Your task to perform on an android device: View the shopping cart on amazon.com. Add "usb-b" to the cart on amazon.com Image 0: 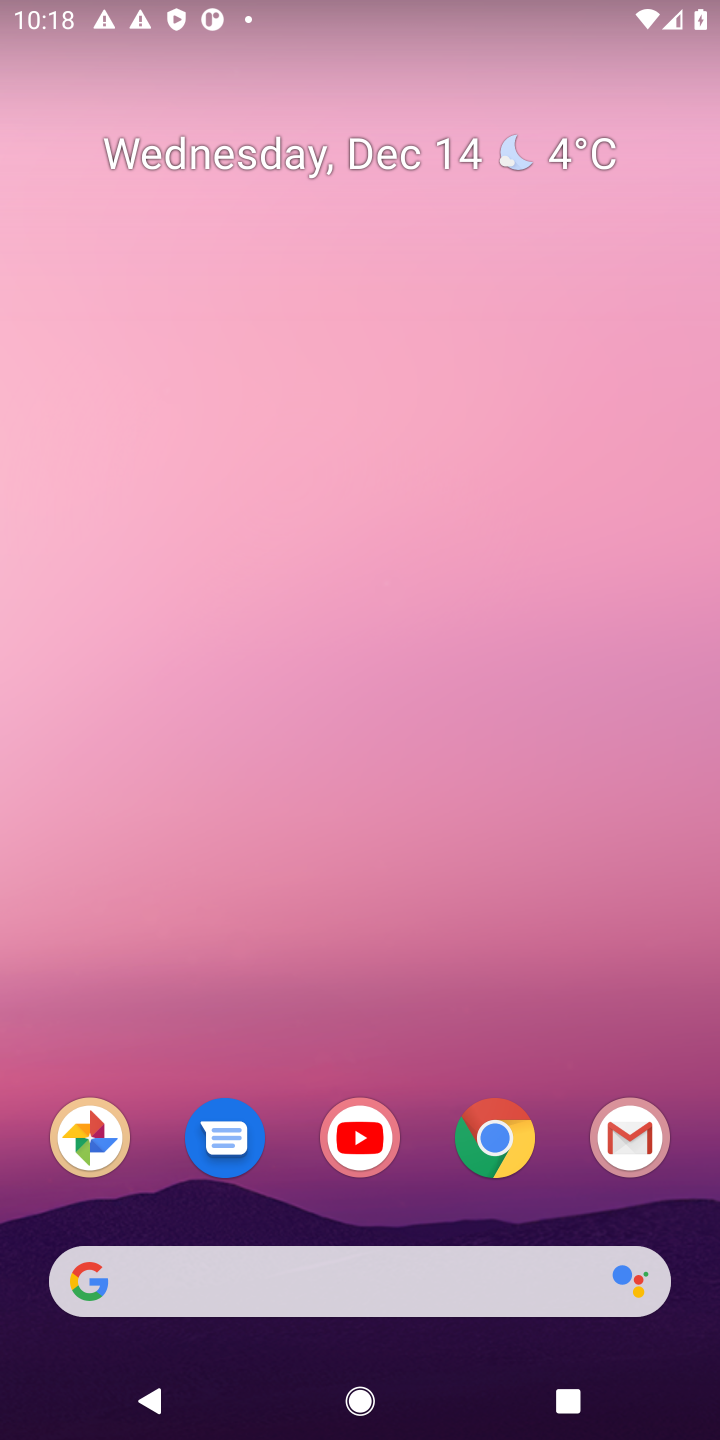
Step 0: click (519, 1152)
Your task to perform on an android device: View the shopping cart on amazon.com. Add "usb-b" to the cart on amazon.com Image 1: 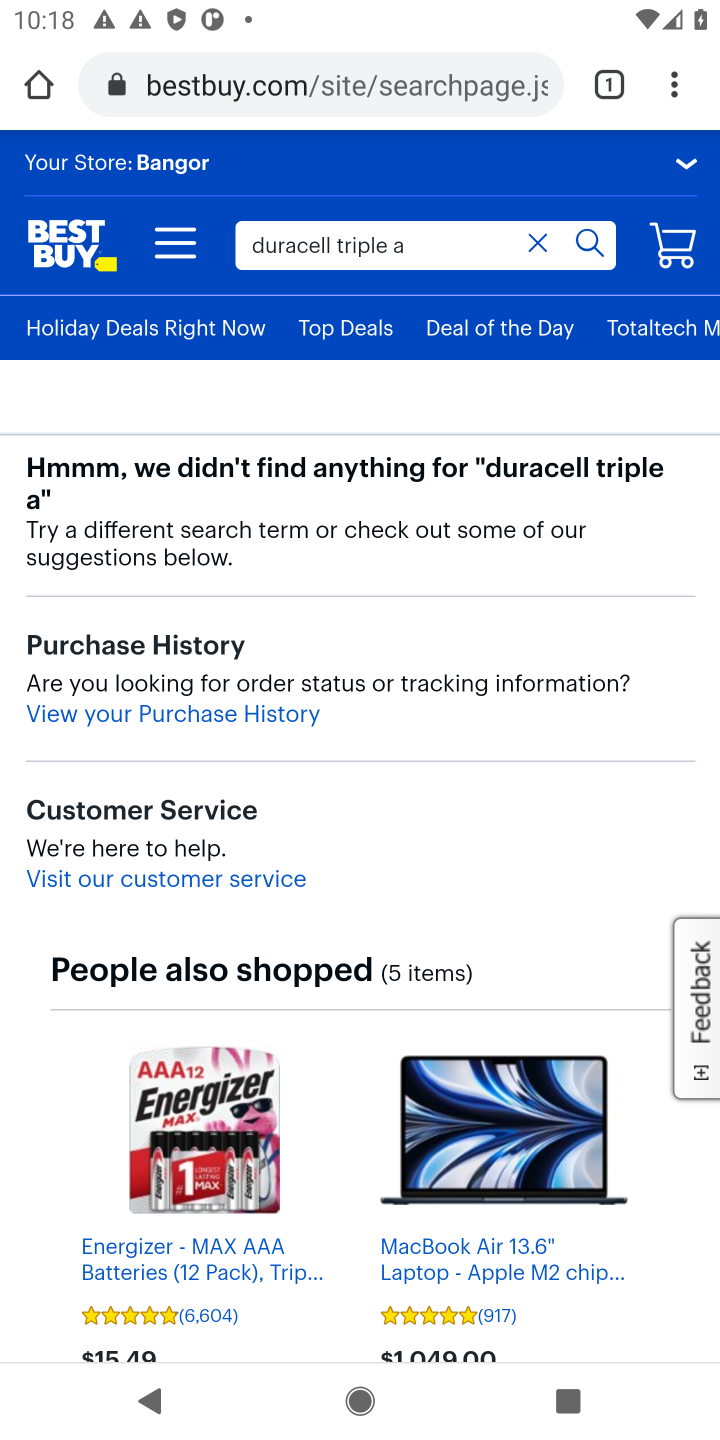
Step 1: click (279, 103)
Your task to perform on an android device: View the shopping cart on amazon.com. Add "usb-b" to the cart on amazon.com Image 2: 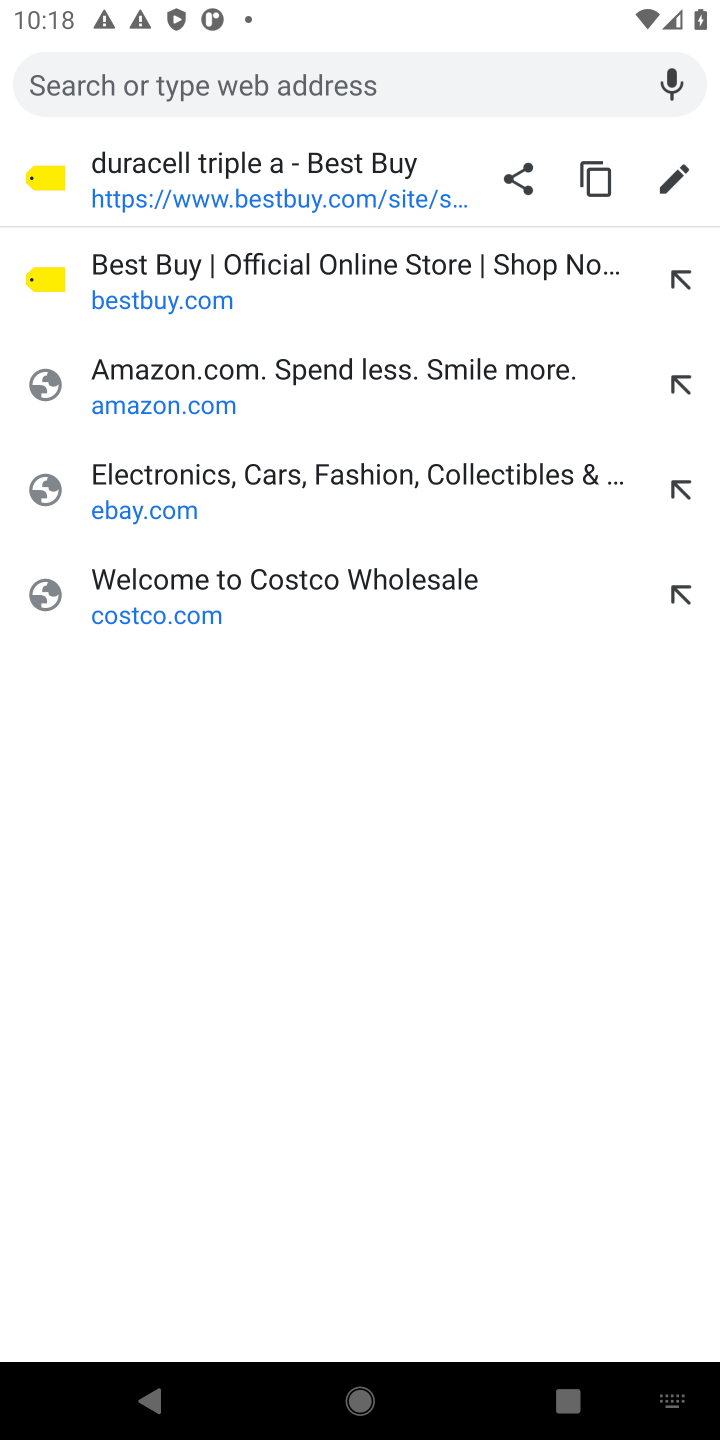
Step 2: click (120, 393)
Your task to perform on an android device: View the shopping cart on amazon.com. Add "usb-b" to the cart on amazon.com Image 3: 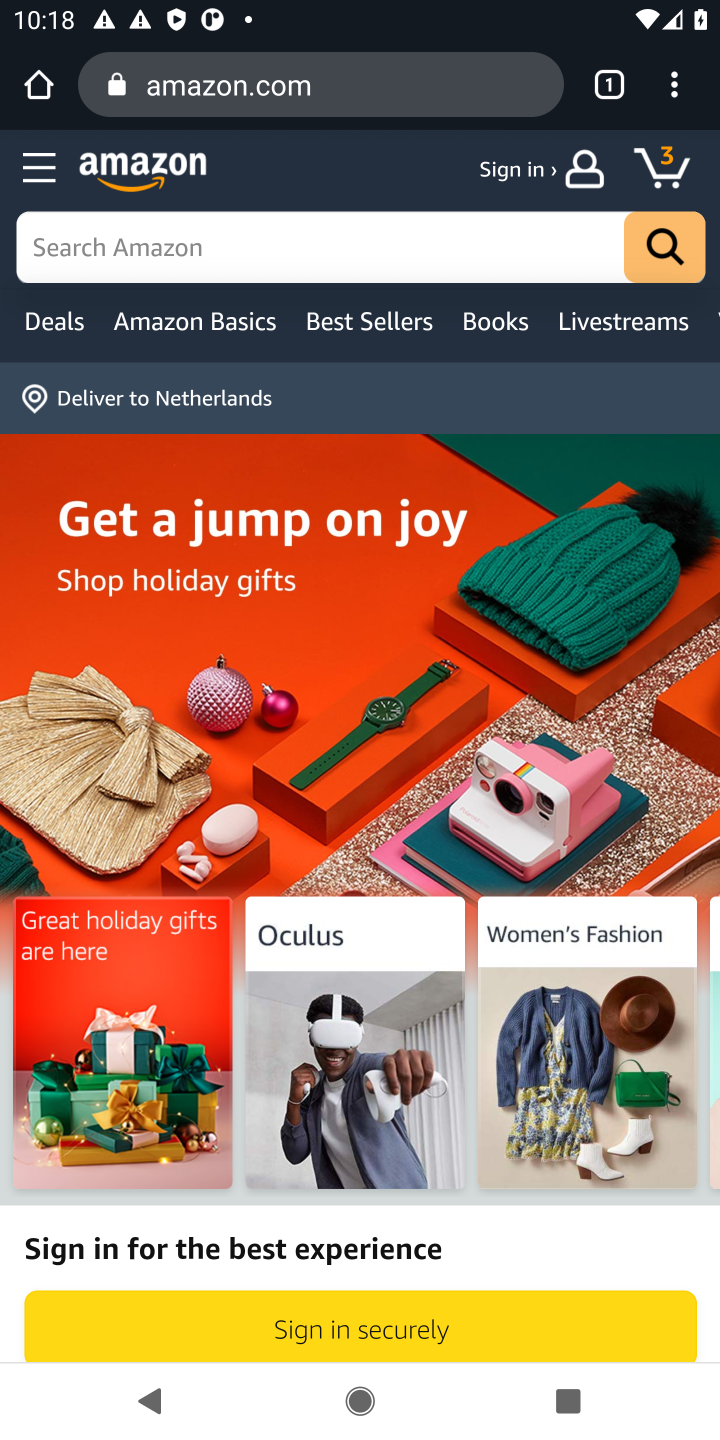
Step 3: click (669, 180)
Your task to perform on an android device: View the shopping cart on amazon.com. Add "usb-b" to the cart on amazon.com Image 4: 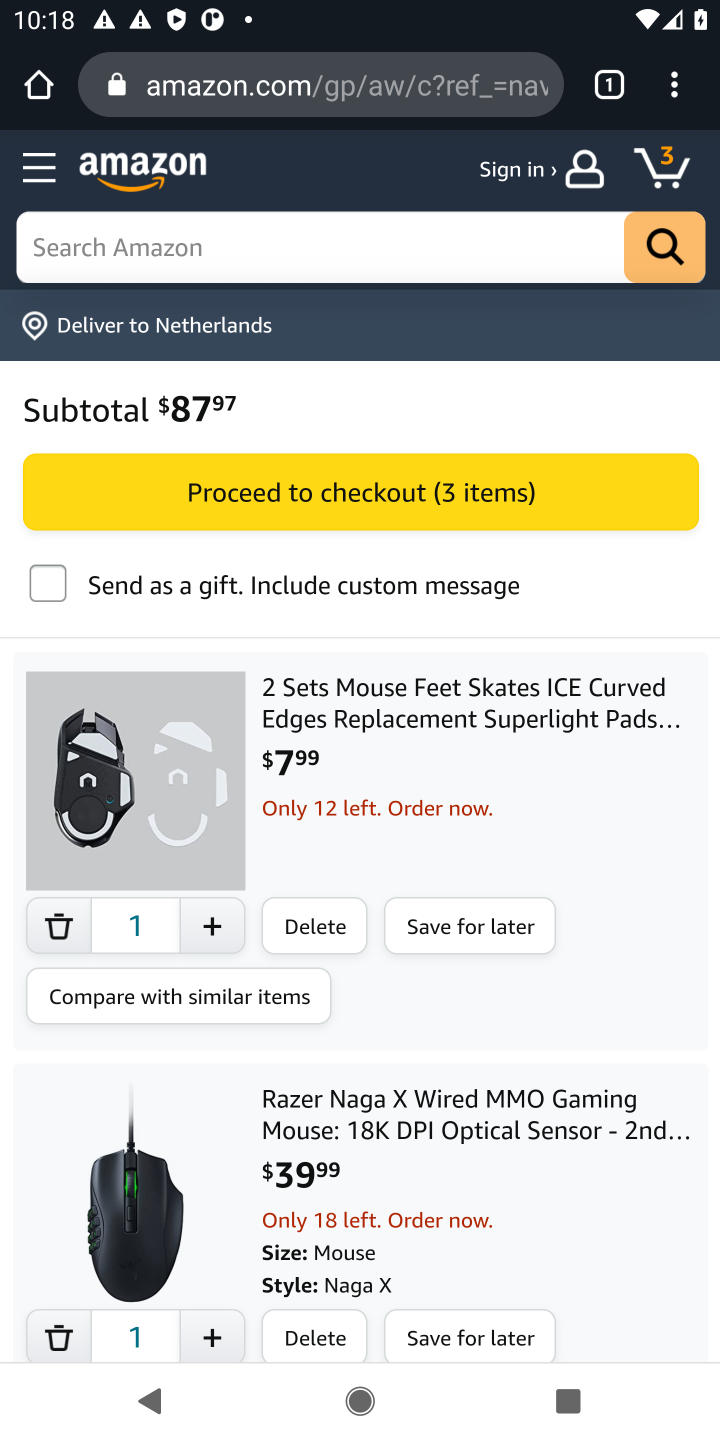
Step 4: click (200, 247)
Your task to perform on an android device: View the shopping cart on amazon.com. Add "usb-b" to the cart on amazon.com Image 5: 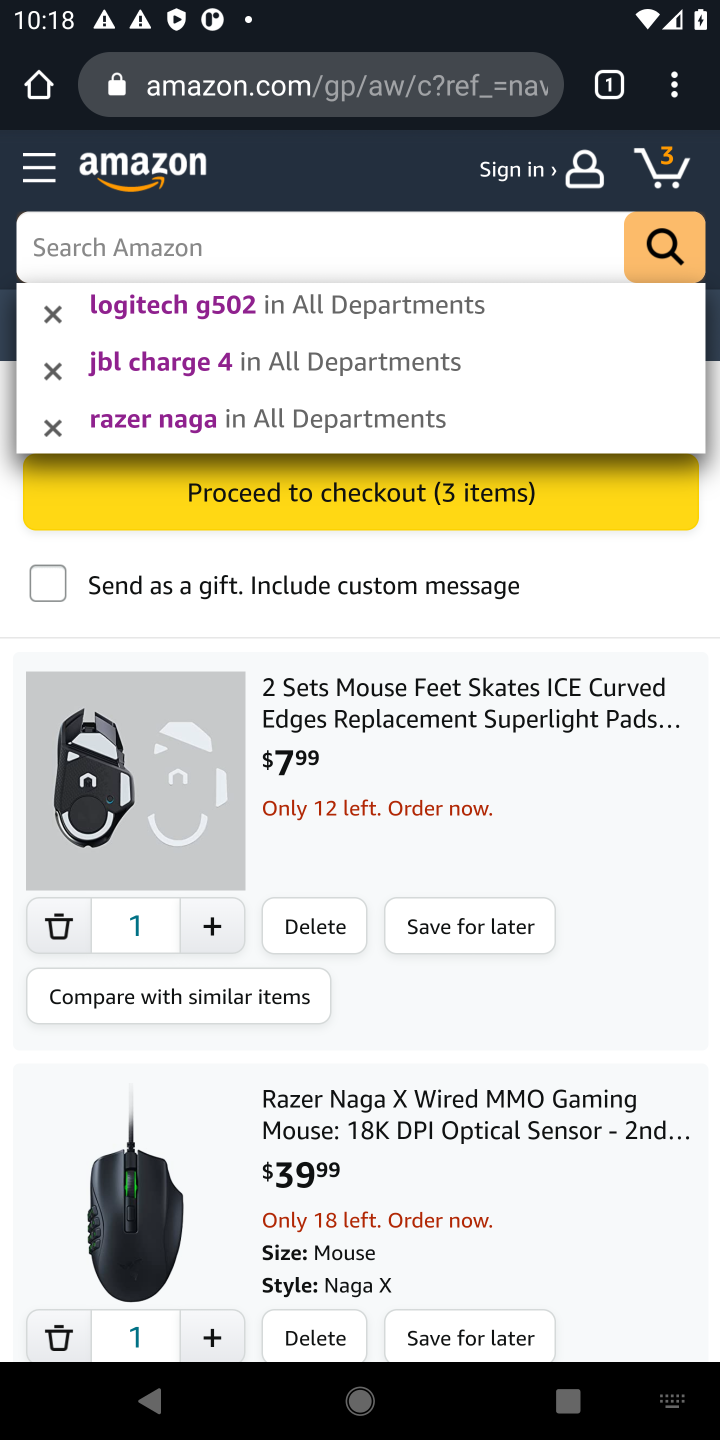
Step 5: type "usb-b"
Your task to perform on an android device: View the shopping cart on amazon.com. Add "usb-b" to the cart on amazon.com Image 6: 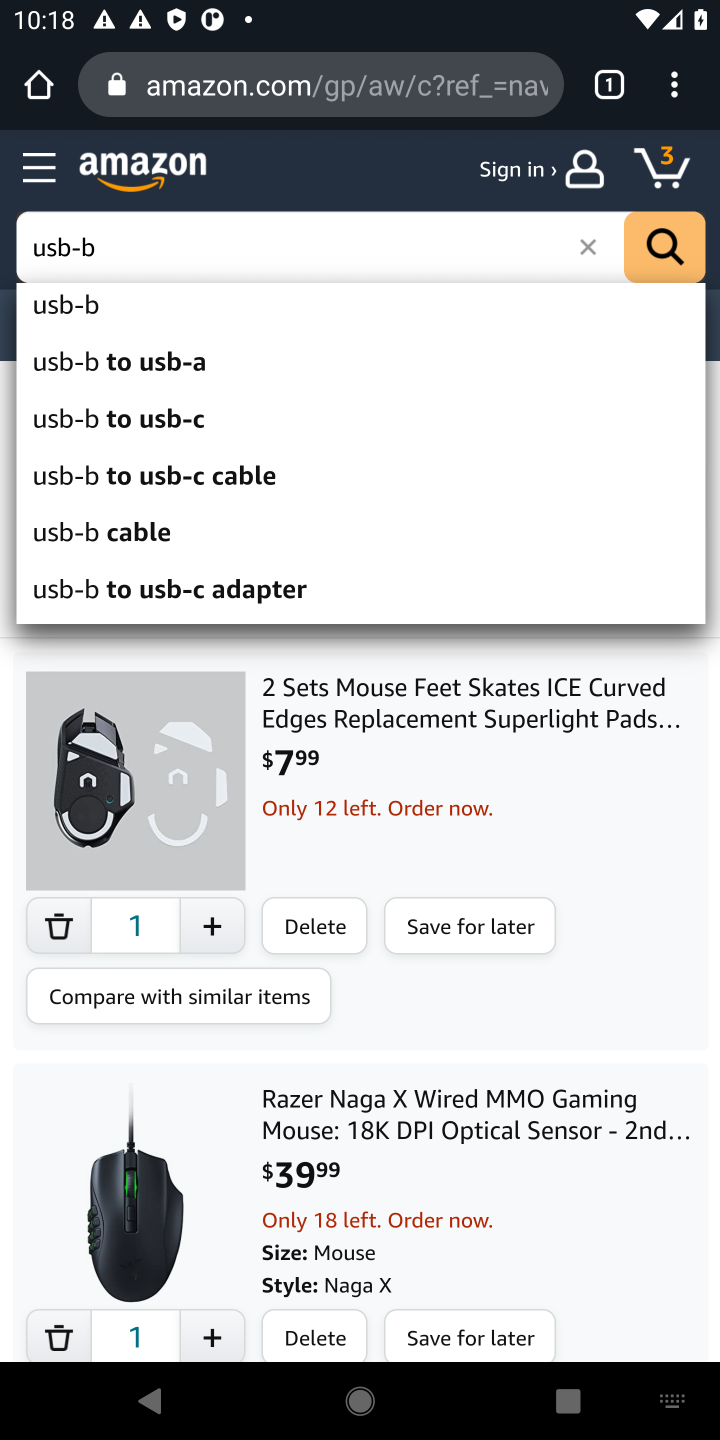
Step 6: click (45, 315)
Your task to perform on an android device: View the shopping cart on amazon.com. Add "usb-b" to the cart on amazon.com Image 7: 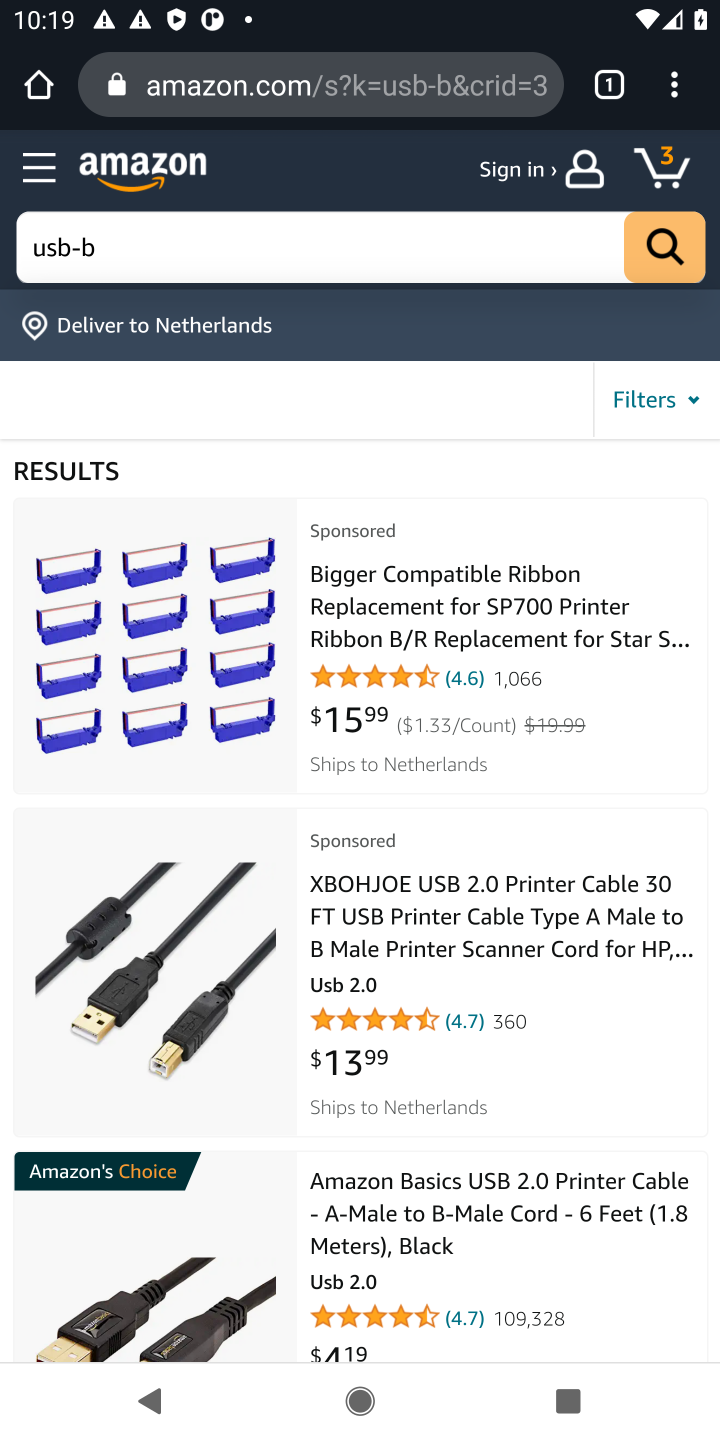
Step 7: drag from (311, 989) to (226, 635)
Your task to perform on an android device: View the shopping cart on amazon.com. Add "usb-b" to the cart on amazon.com Image 8: 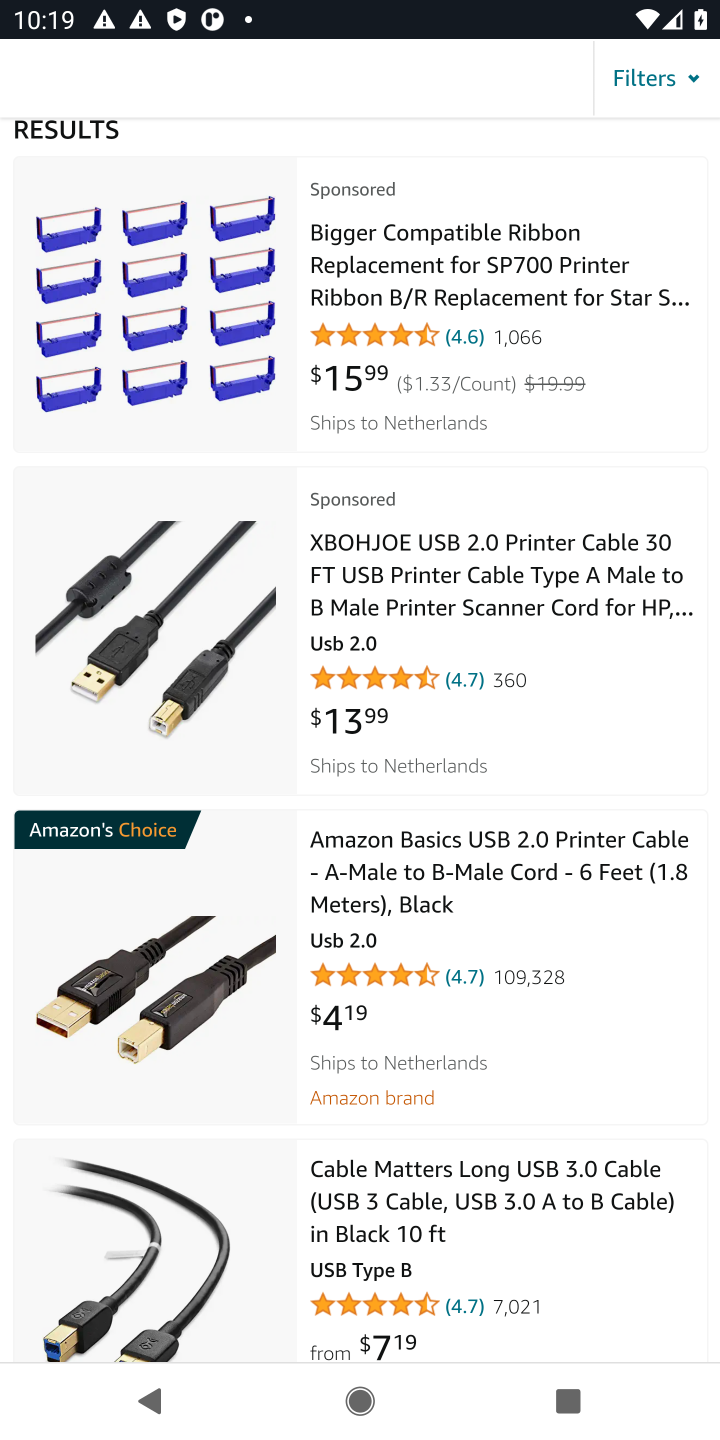
Step 8: drag from (253, 970) to (222, 666)
Your task to perform on an android device: View the shopping cart on amazon.com. Add "usb-b" to the cart on amazon.com Image 9: 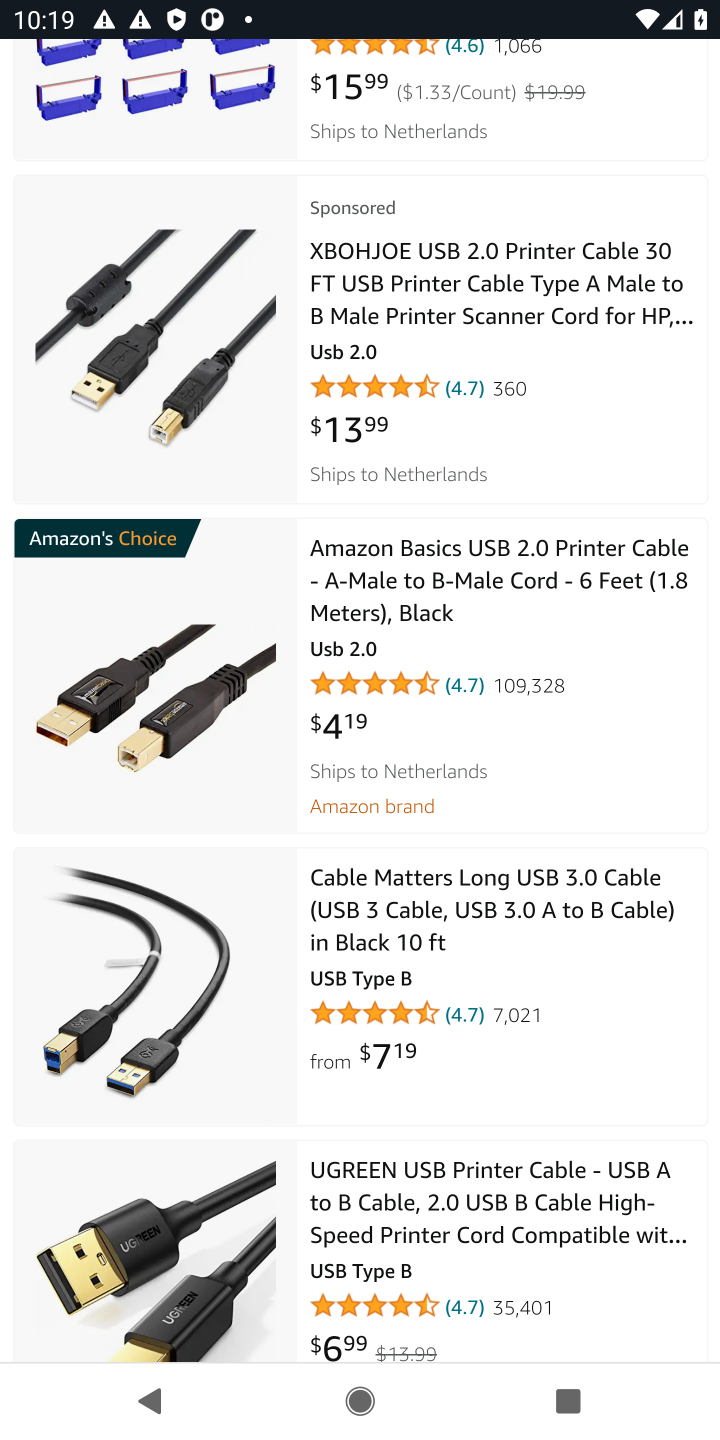
Step 9: click (346, 933)
Your task to perform on an android device: View the shopping cart on amazon.com. Add "usb-b" to the cart on amazon.com Image 10: 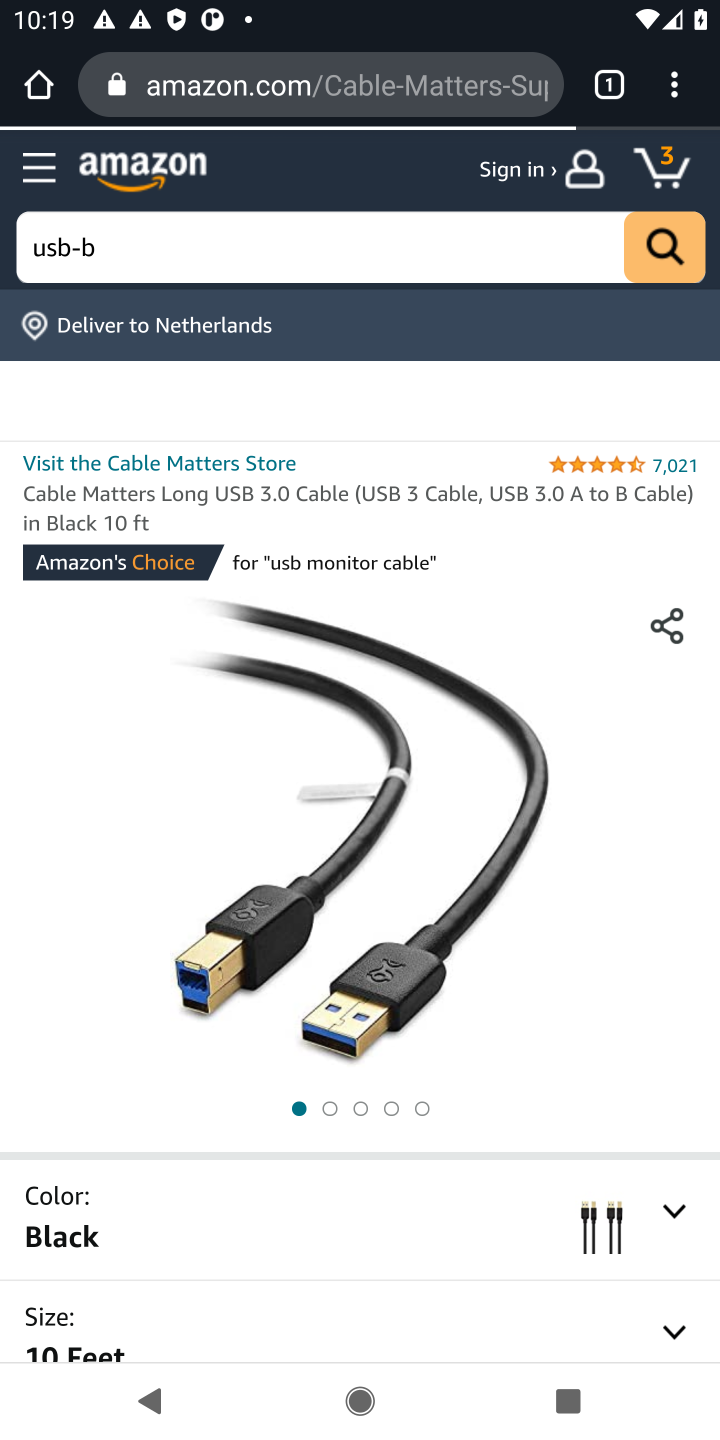
Step 10: drag from (338, 1005) to (372, 494)
Your task to perform on an android device: View the shopping cart on amazon.com. Add "usb-b" to the cart on amazon.com Image 11: 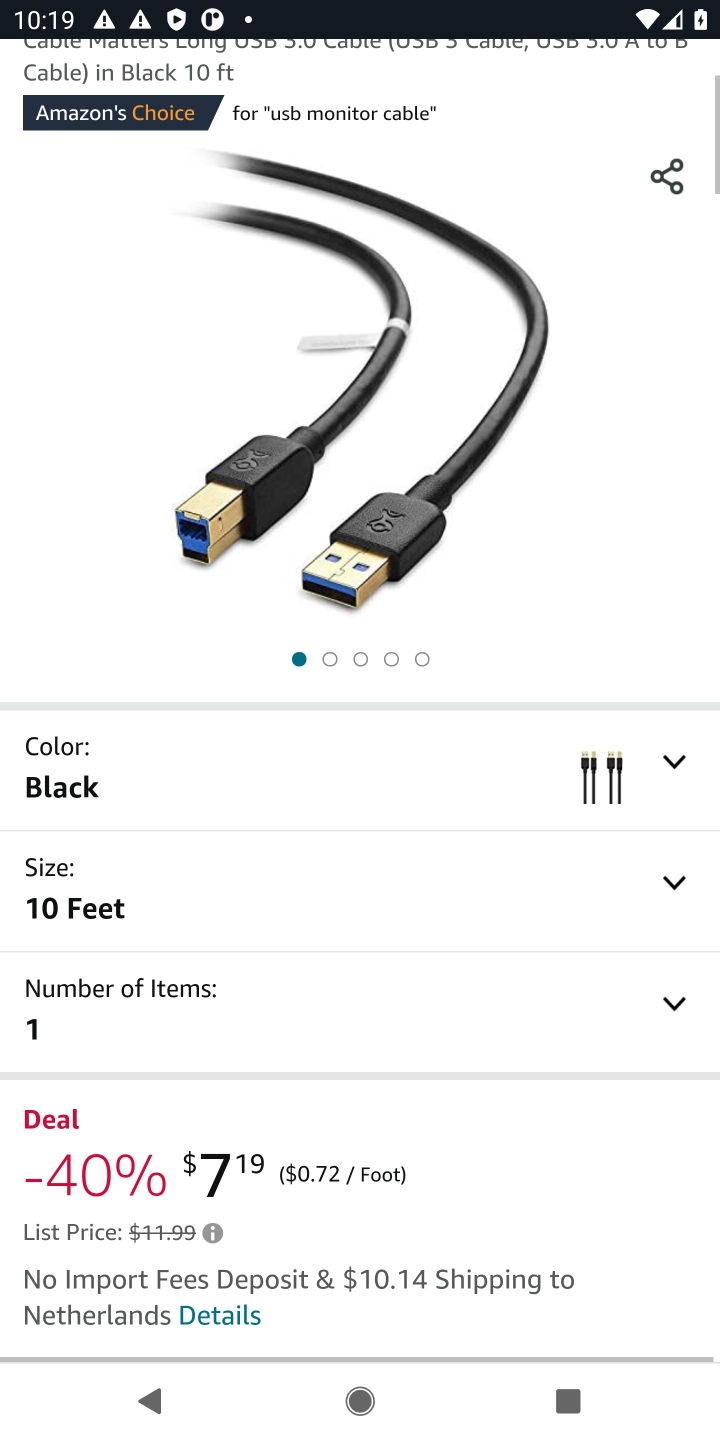
Step 11: drag from (381, 1062) to (371, 573)
Your task to perform on an android device: View the shopping cart on amazon.com. Add "usb-b" to the cart on amazon.com Image 12: 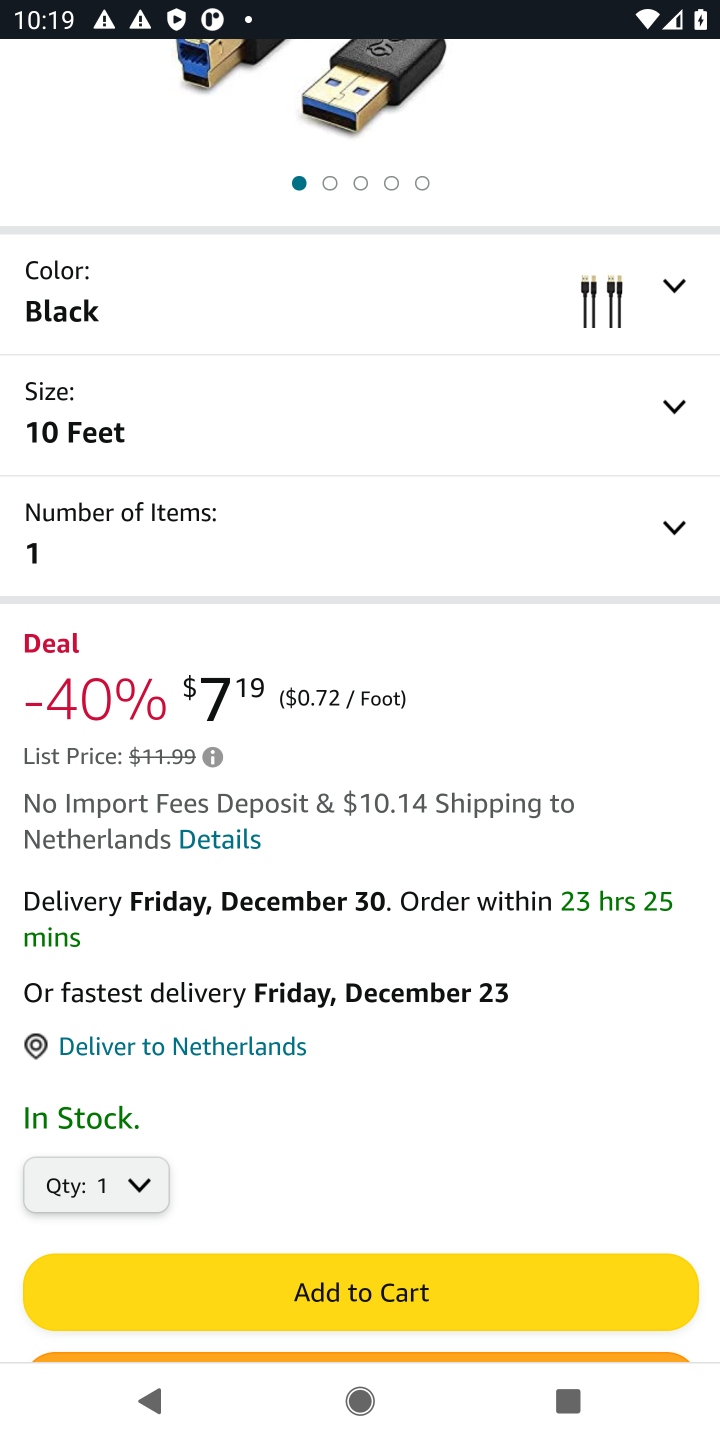
Step 12: click (313, 1295)
Your task to perform on an android device: View the shopping cart on amazon.com. Add "usb-b" to the cart on amazon.com Image 13: 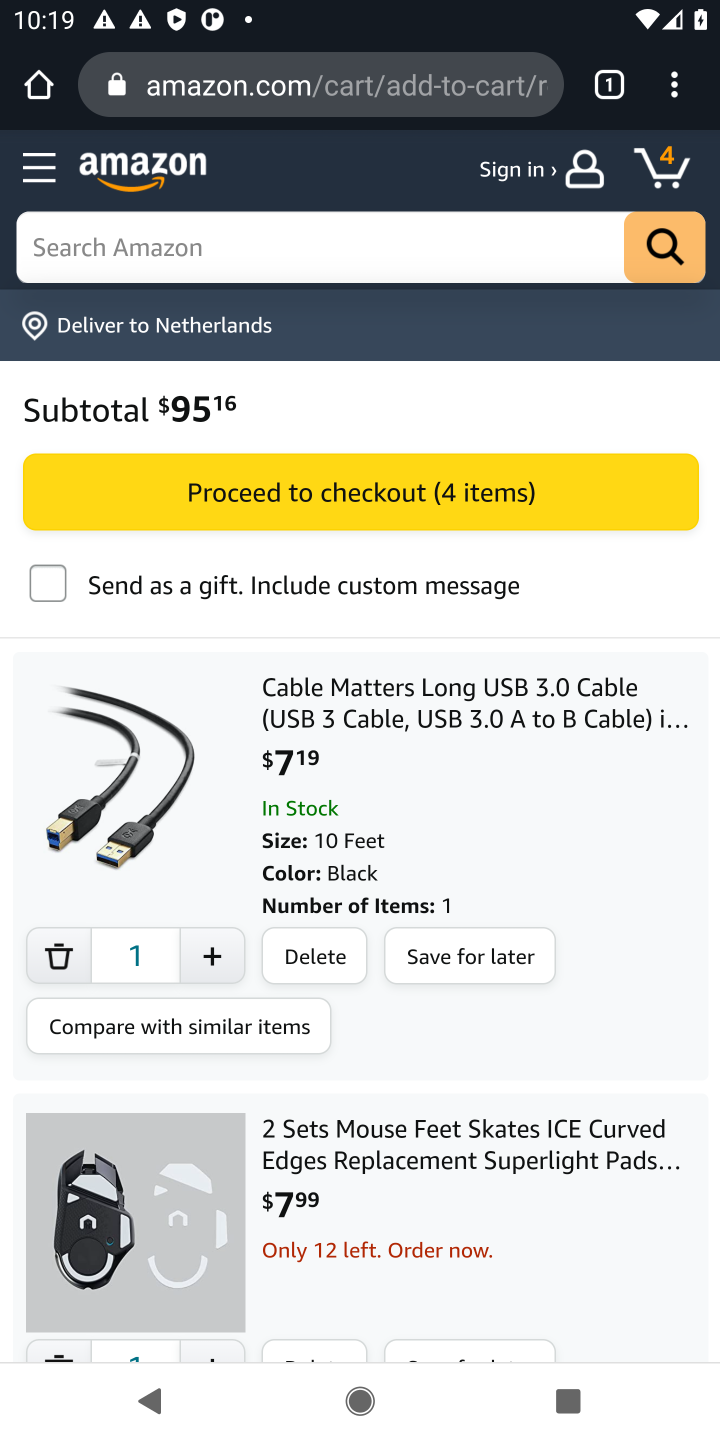
Step 13: task complete